Your task to perform on an android device: Open the gallery Image 0: 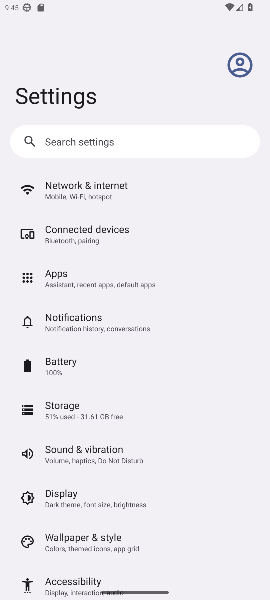
Step 0: press home button
Your task to perform on an android device: Open the gallery Image 1: 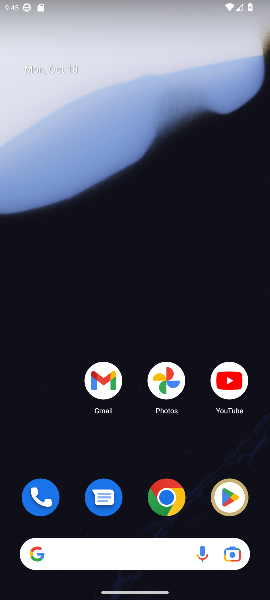
Step 1: drag from (124, 458) to (135, 116)
Your task to perform on an android device: Open the gallery Image 2: 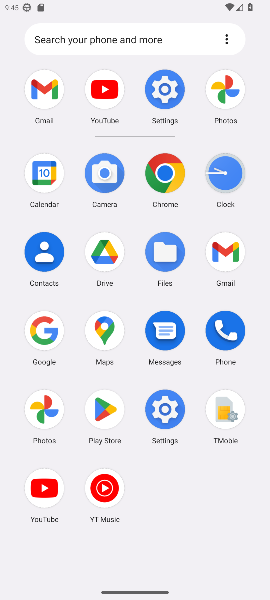
Step 2: click (39, 394)
Your task to perform on an android device: Open the gallery Image 3: 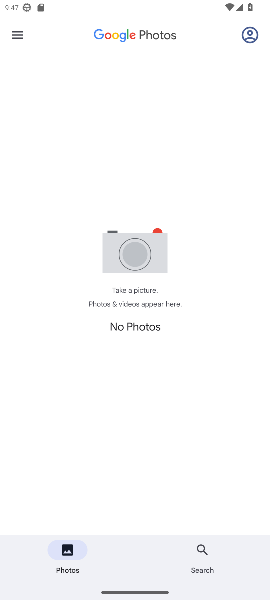
Step 3: task complete